Your task to perform on an android device: Open calendar and show me the fourth week of next month Image 0: 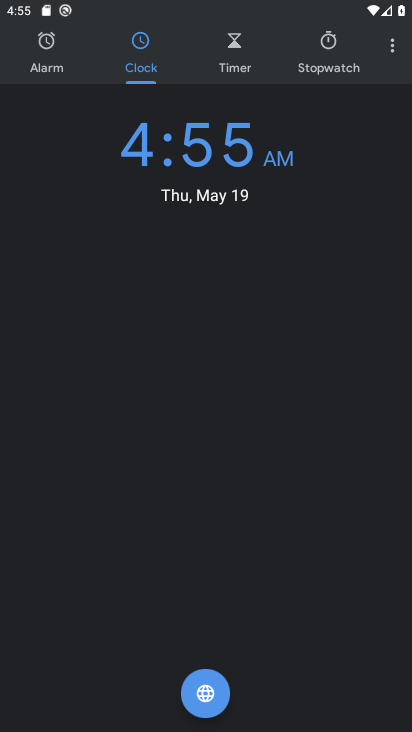
Step 0: press back button
Your task to perform on an android device: Open calendar and show me the fourth week of next month Image 1: 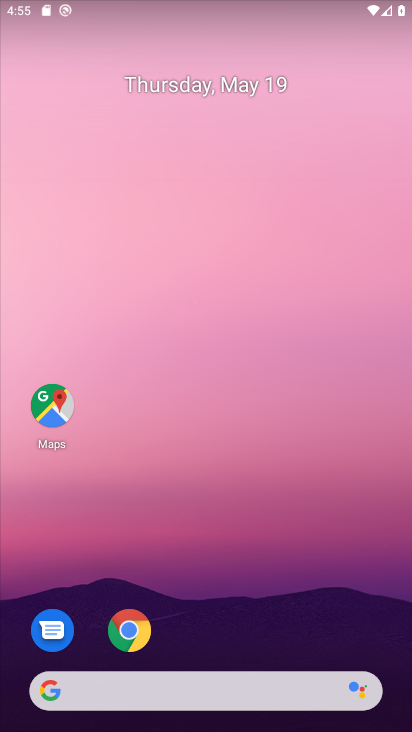
Step 1: drag from (184, 559) to (174, 0)
Your task to perform on an android device: Open calendar and show me the fourth week of next month Image 2: 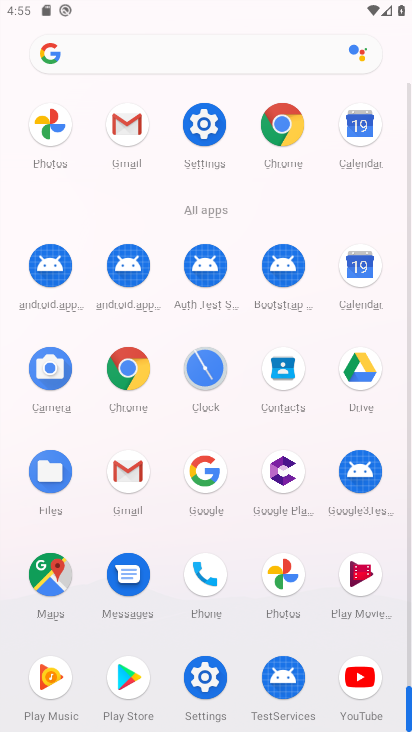
Step 2: drag from (11, 539) to (18, 211)
Your task to perform on an android device: Open calendar and show me the fourth week of next month Image 3: 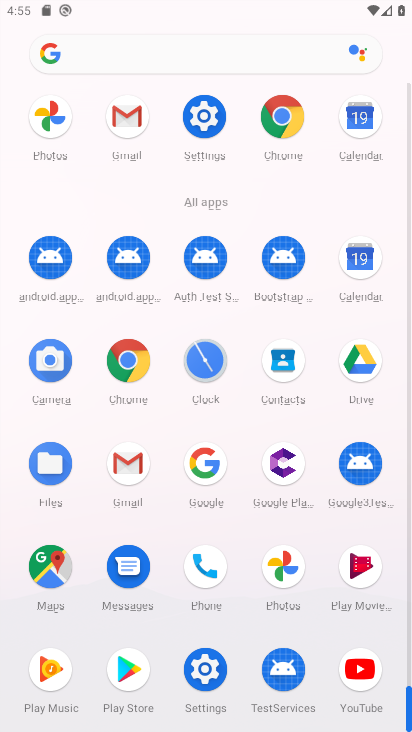
Step 3: drag from (4, 559) to (8, 246)
Your task to perform on an android device: Open calendar and show me the fourth week of next month Image 4: 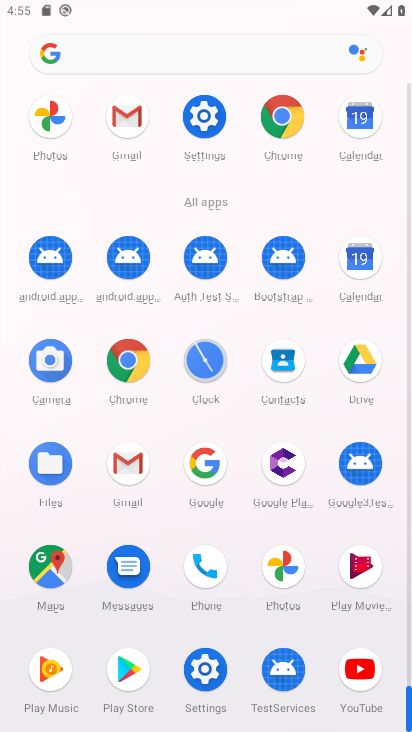
Step 4: click (361, 254)
Your task to perform on an android device: Open calendar and show me the fourth week of next month Image 5: 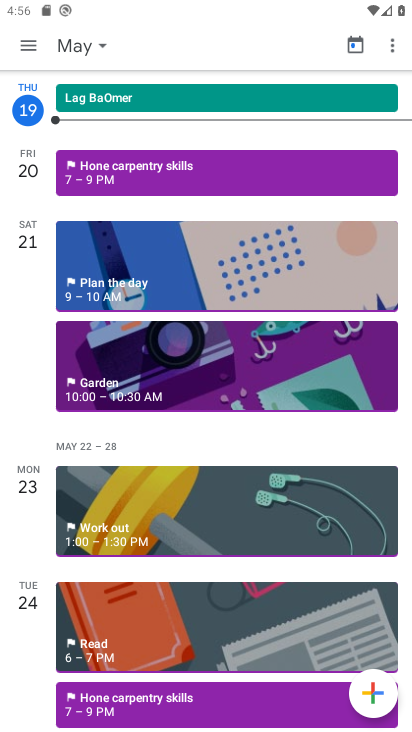
Step 5: click (66, 38)
Your task to perform on an android device: Open calendar and show me the fourth week of next month Image 6: 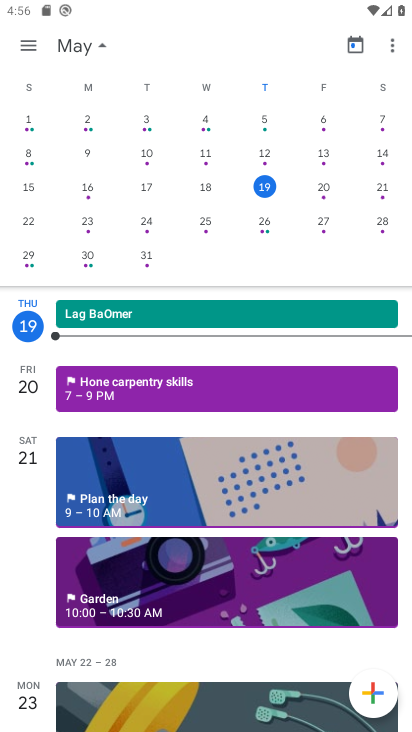
Step 6: drag from (380, 198) to (0, 181)
Your task to perform on an android device: Open calendar and show me the fourth week of next month Image 7: 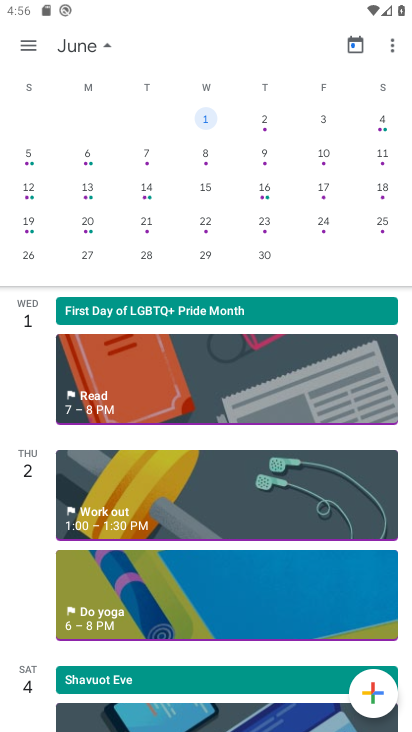
Step 7: click (26, 216)
Your task to perform on an android device: Open calendar and show me the fourth week of next month Image 8: 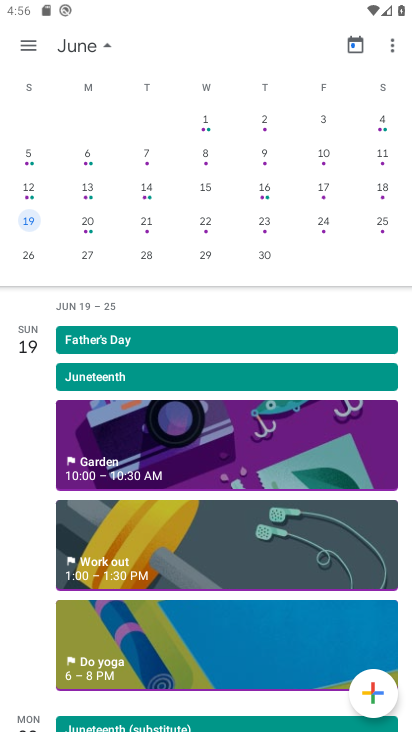
Step 8: click (27, 35)
Your task to perform on an android device: Open calendar and show me the fourth week of next month Image 9: 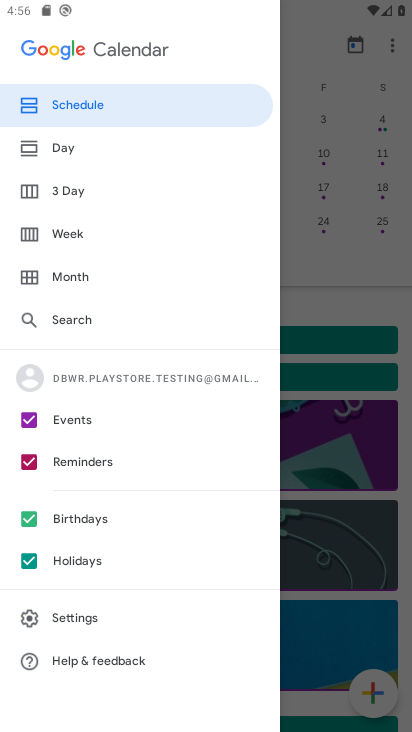
Step 9: click (85, 232)
Your task to perform on an android device: Open calendar and show me the fourth week of next month Image 10: 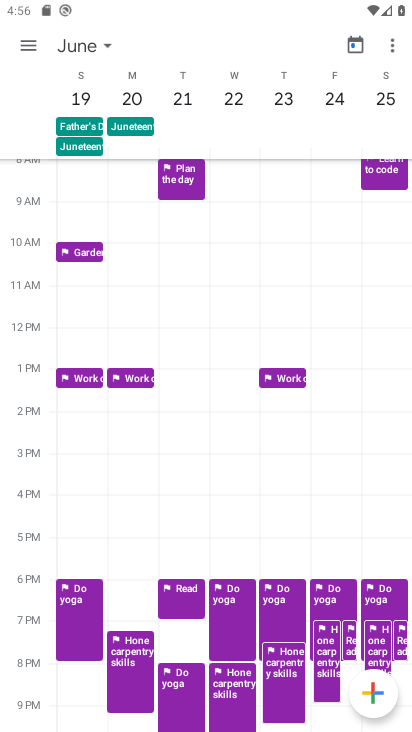
Step 10: task complete